Your task to perform on an android device: turn off notifications settings in the gmail app Image 0: 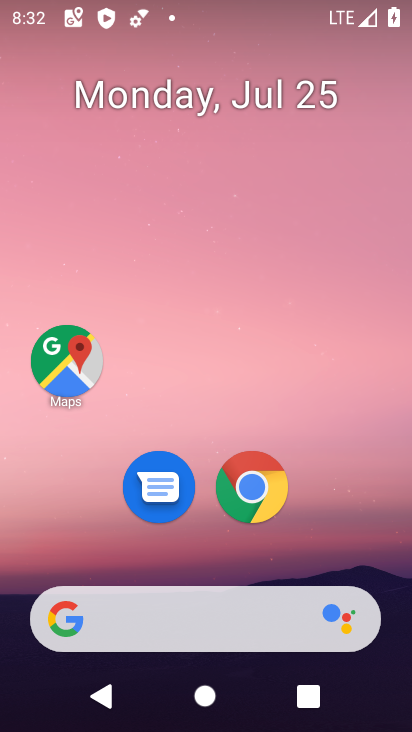
Step 0: drag from (174, 569) to (268, 34)
Your task to perform on an android device: turn off notifications settings in the gmail app Image 1: 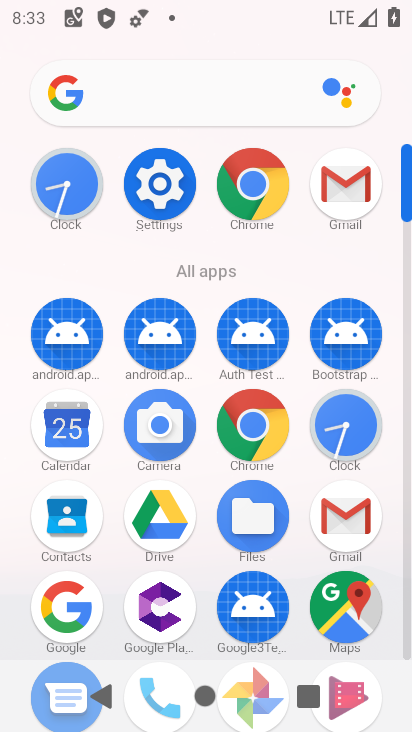
Step 1: click (330, 179)
Your task to perform on an android device: turn off notifications settings in the gmail app Image 2: 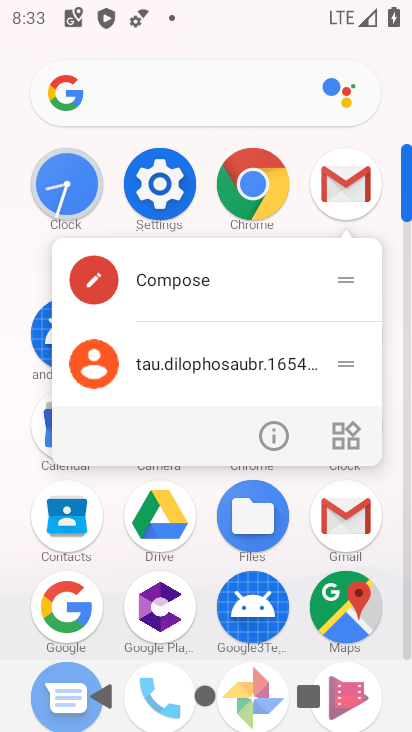
Step 2: click (288, 450)
Your task to perform on an android device: turn off notifications settings in the gmail app Image 3: 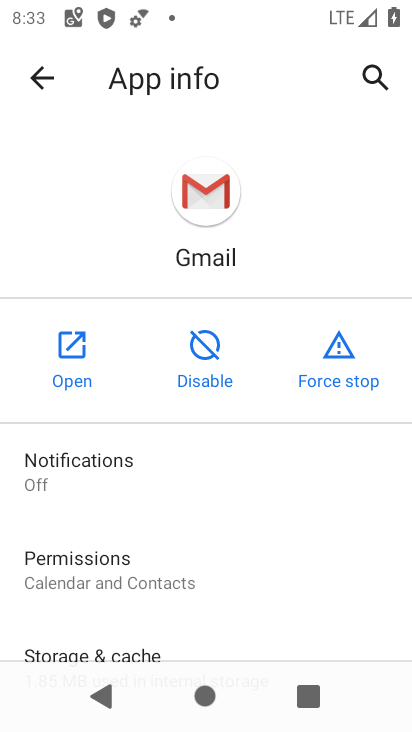
Step 3: click (118, 494)
Your task to perform on an android device: turn off notifications settings in the gmail app Image 4: 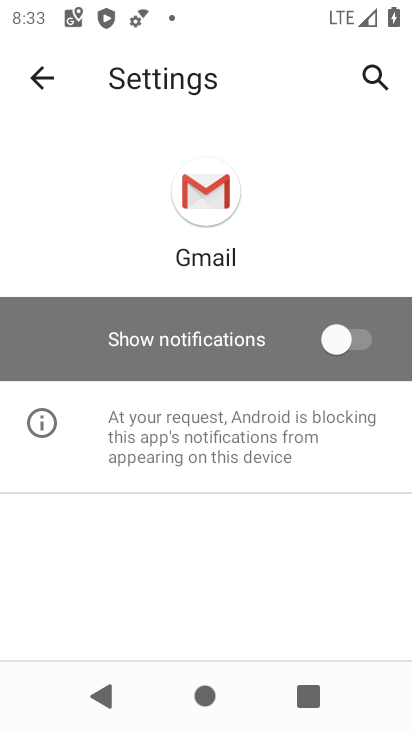
Step 4: task complete